Your task to perform on an android device: Open Yahoo.com Image 0: 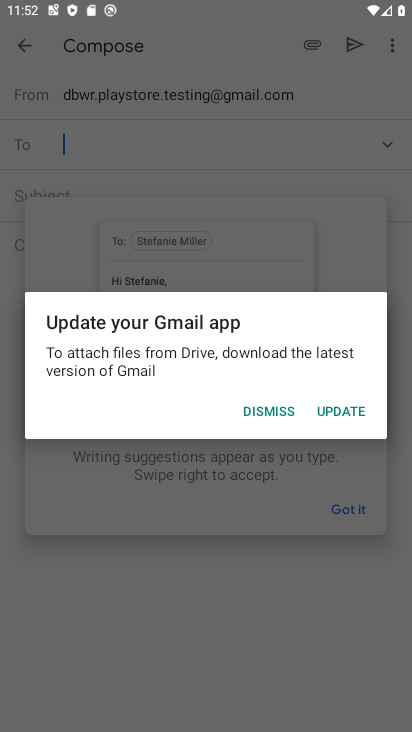
Step 0: press home button
Your task to perform on an android device: Open Yahoo.com Image 1: 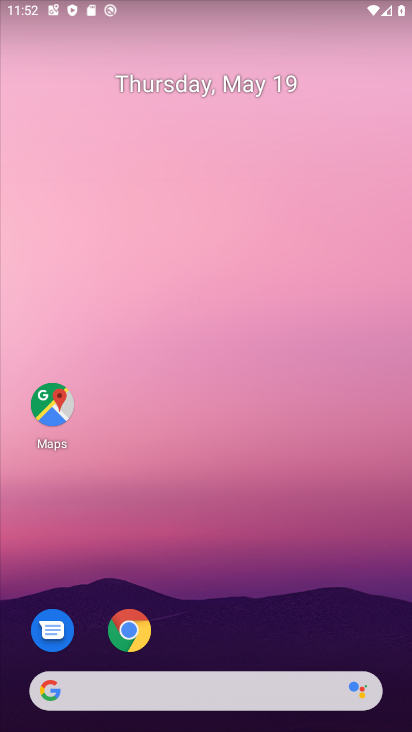
Step 1: click (128, 629)
Your task to perform on an android device: Open Yahoo.com Image 2: 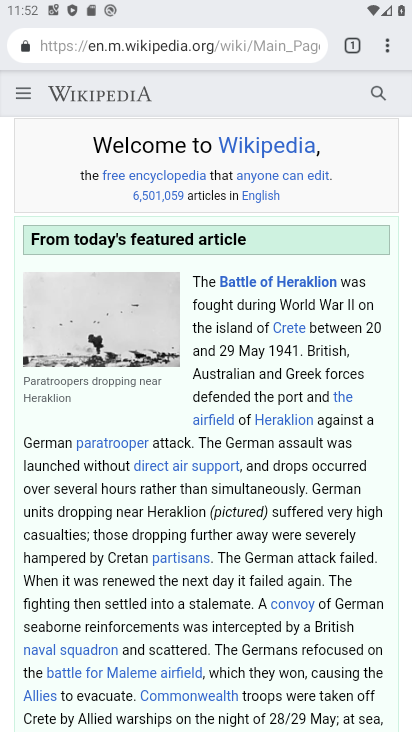
Step 2: click (225, 42)
Your task to perform on an android device: Open Yahoo.com Image 3: 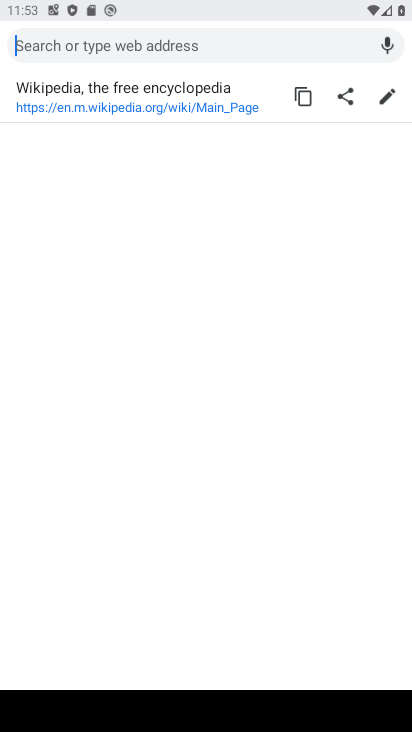
Step 3: type "Yahoo.com"
Your task to perform on an android device: Open Yahoo.com Image 4: 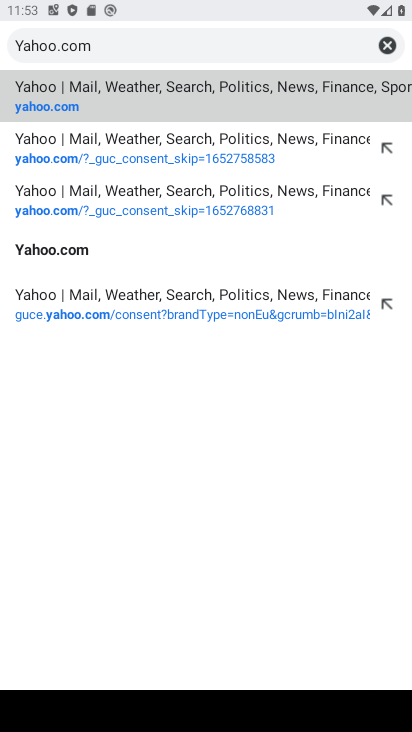
Step 4: click (64, 252)
Your task to perform on an android device: Open Yahoo.com Image 5: 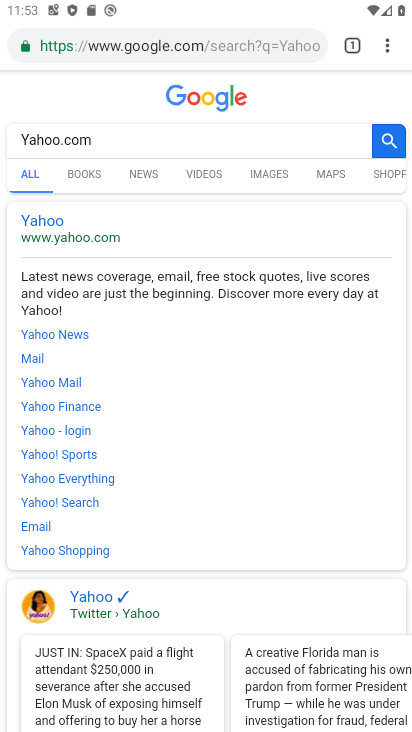
Step 5: click (74, 228)
Your task to perform on an android device: Open Yahoo.com Image 6: 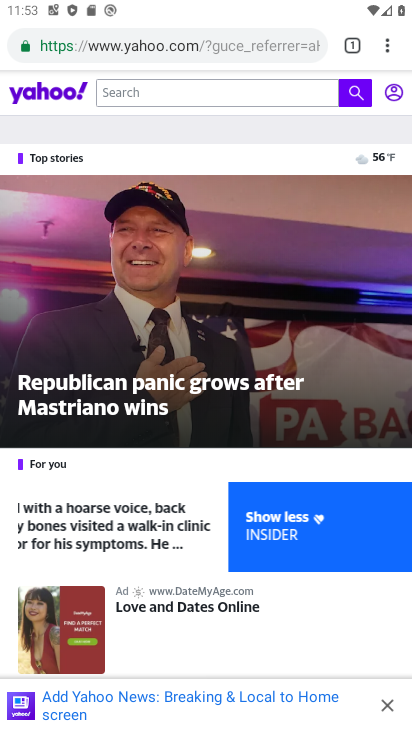
Step 6: task complete